Your task to perform on an android device: Open my contact list Image 0: 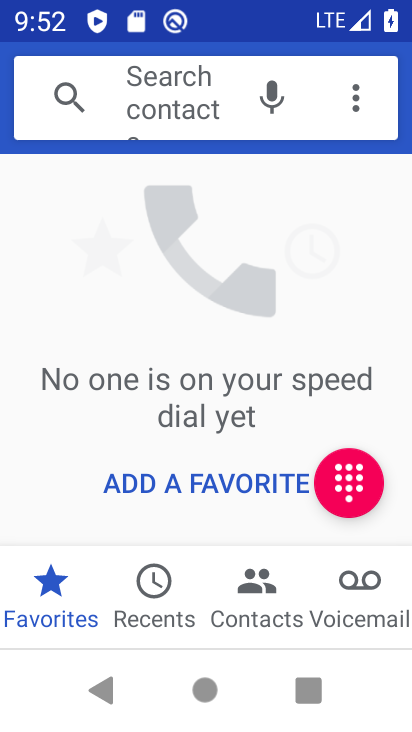
Step 0: press home button
Your task to perform on an android device: Open my contact list Image 1: 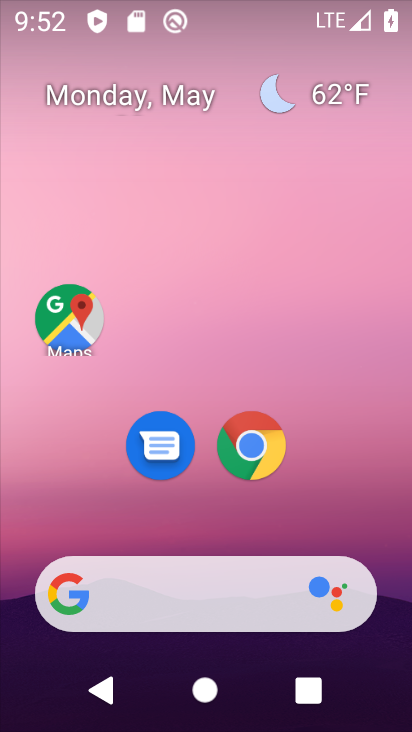
Step 1: drag from (387, 641) to (350, 151)
Your task to perform on an android device: Open my contact list Image 2: 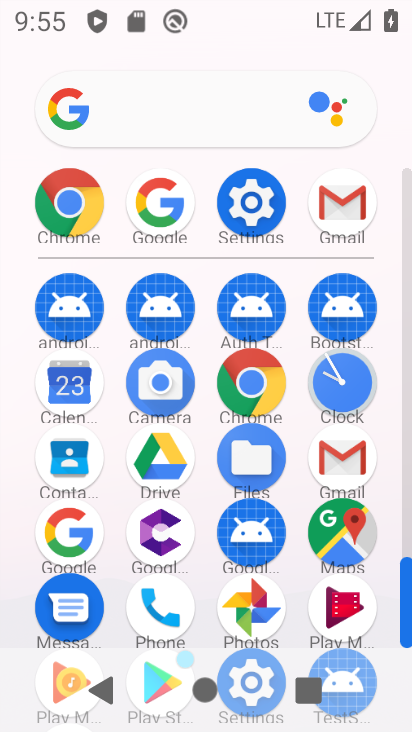
Step 2: click (81, 464)
Your task to perform on an android device: Open my contact list Image 3: 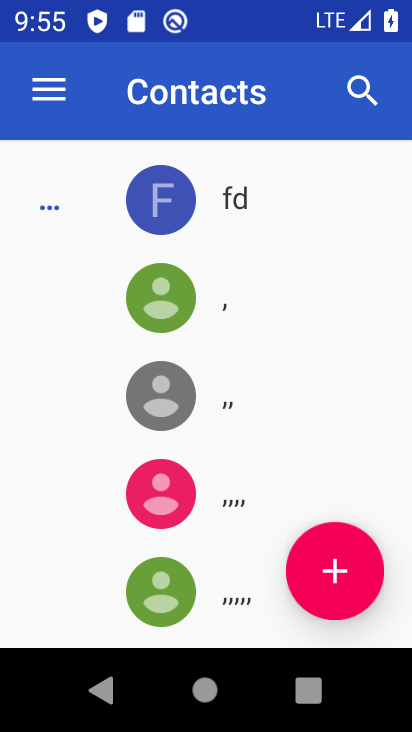
Step 3: task complete